Your task to perform on an android device: Clear all items from cart on amazon.com. Search for "corsair k70" on amazon.com, select the first entry, and add it to the cart. Image 0: 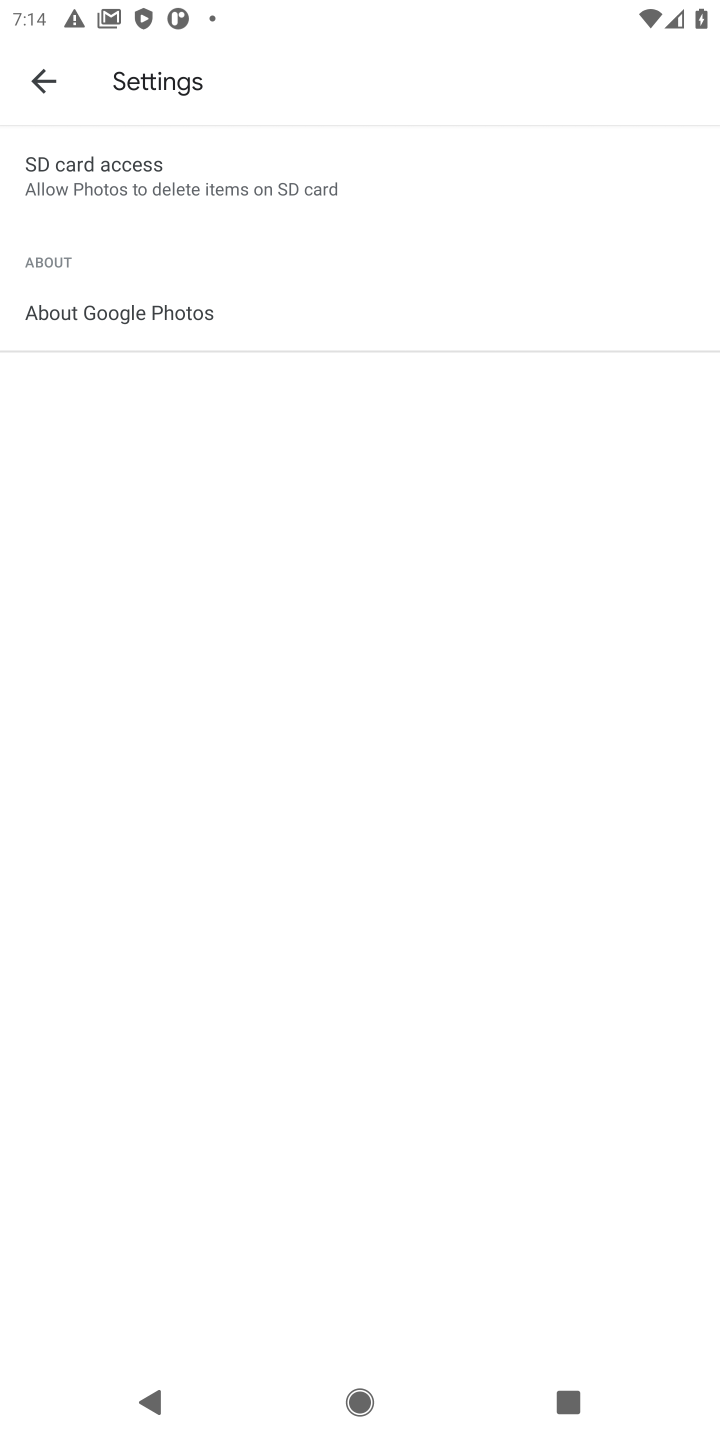
Step 0: press home button
Your task to perform on an android device: Clear all items from cart on amazon.com. Search for "corsair k70" on amazon.com, select the first entry, and add it to the cart. Image 1: 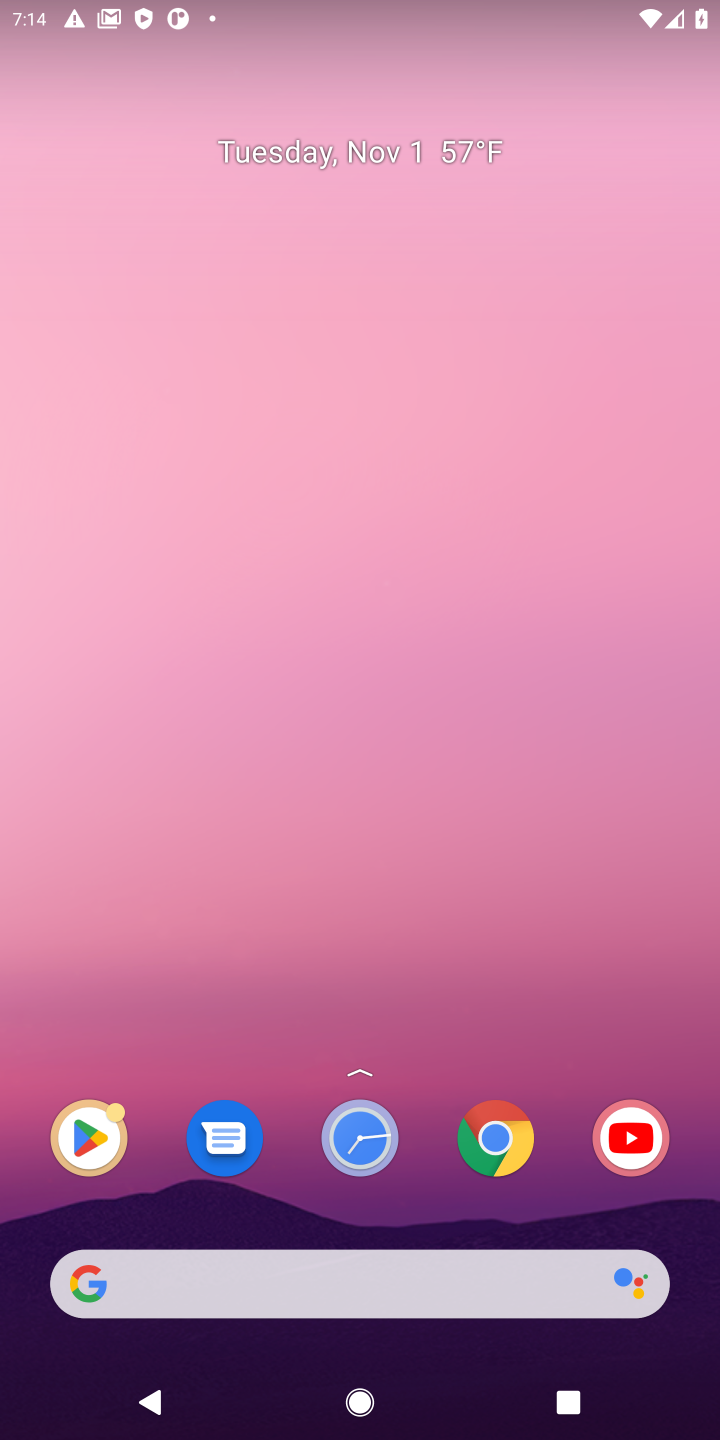
Step 1: click (485, 1155)
Your task to perform on an android device: Clear all items from cart on amazon.com. Search for "corsair k70" on amazon.com, select the first entry, and add it to the cart. Image 2: 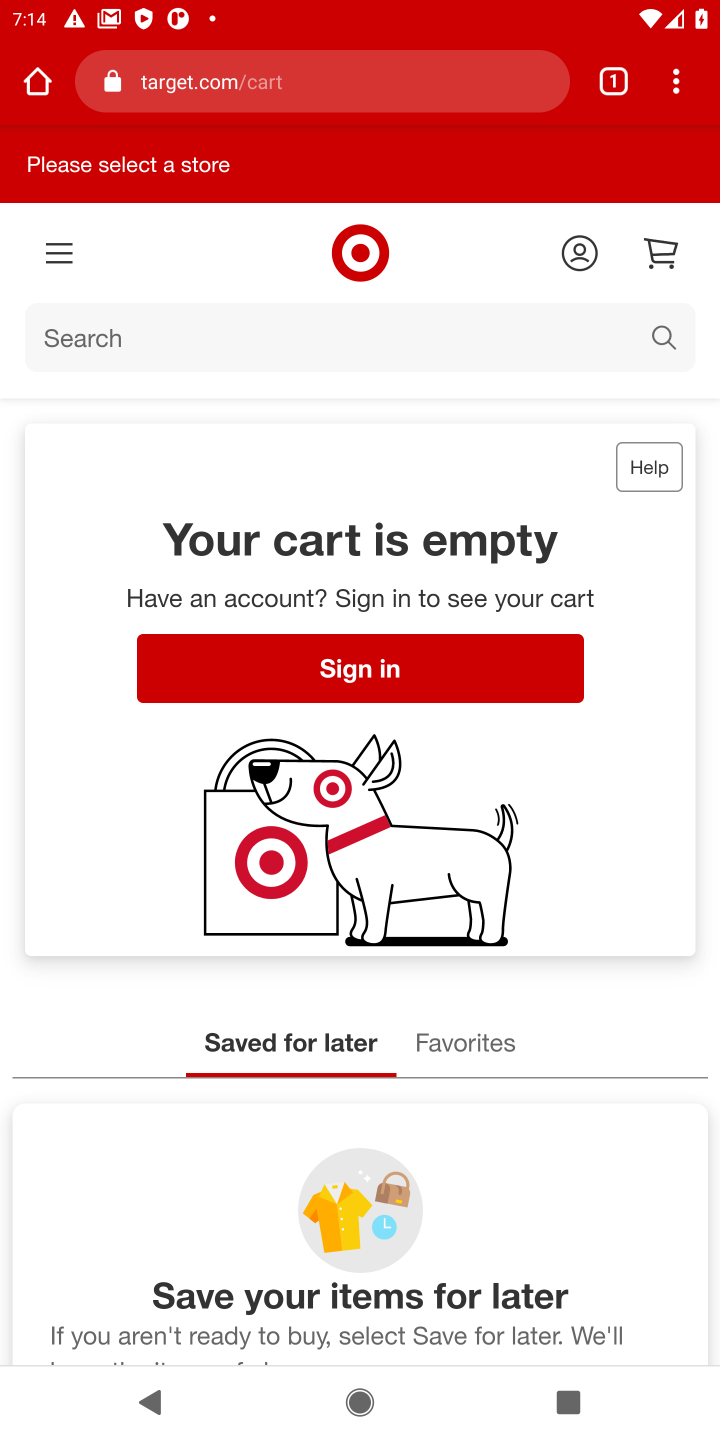
Step 2: click (324, 91)
Your task to perform on an android device: Clear all items from cart on amazon.com. Search for "corsair k70" on amazon.com, select the first entry, and add it to the cart. Image 3: 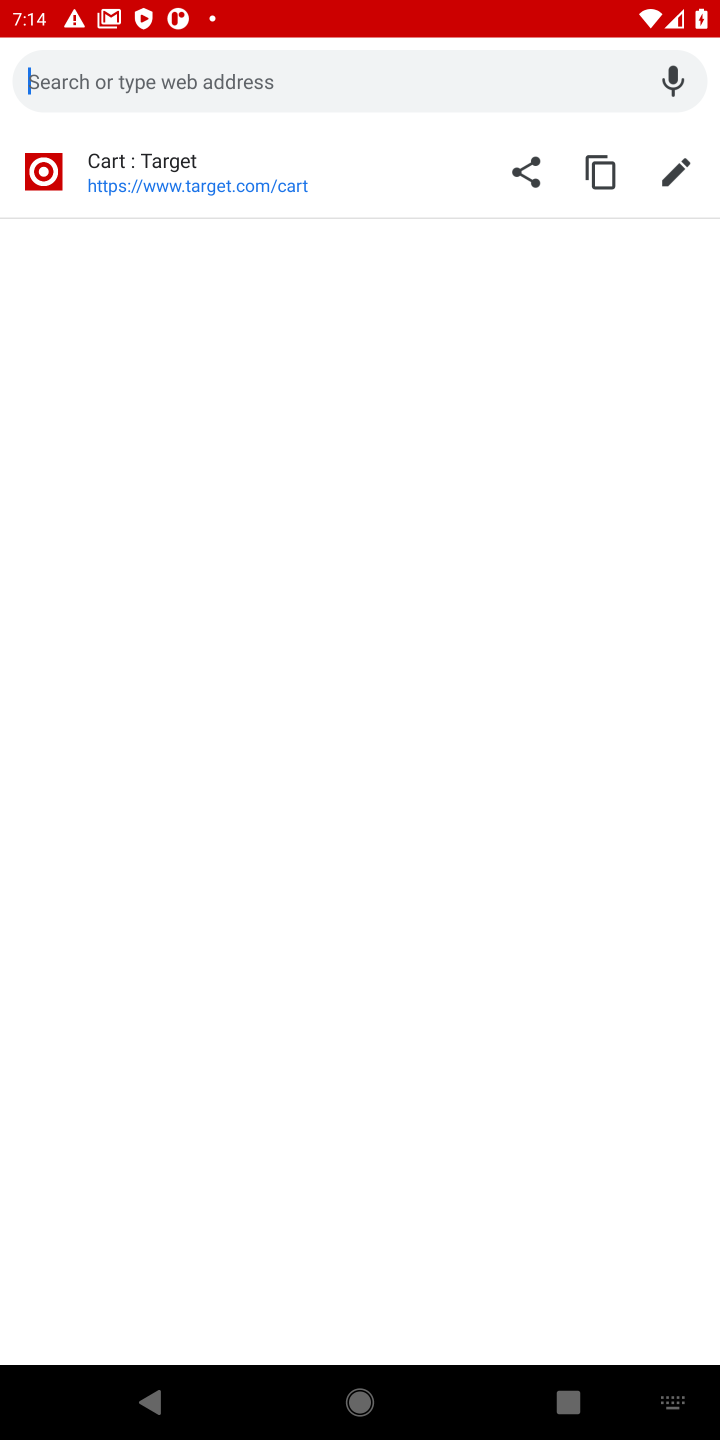
Step 3: type "amazon.com"
Your task to perform on an android device: Clear all items from cart on amazon.com. Search for "corsair k70" on amazon.com, select the first entry, and add it to the cart. Image 4: 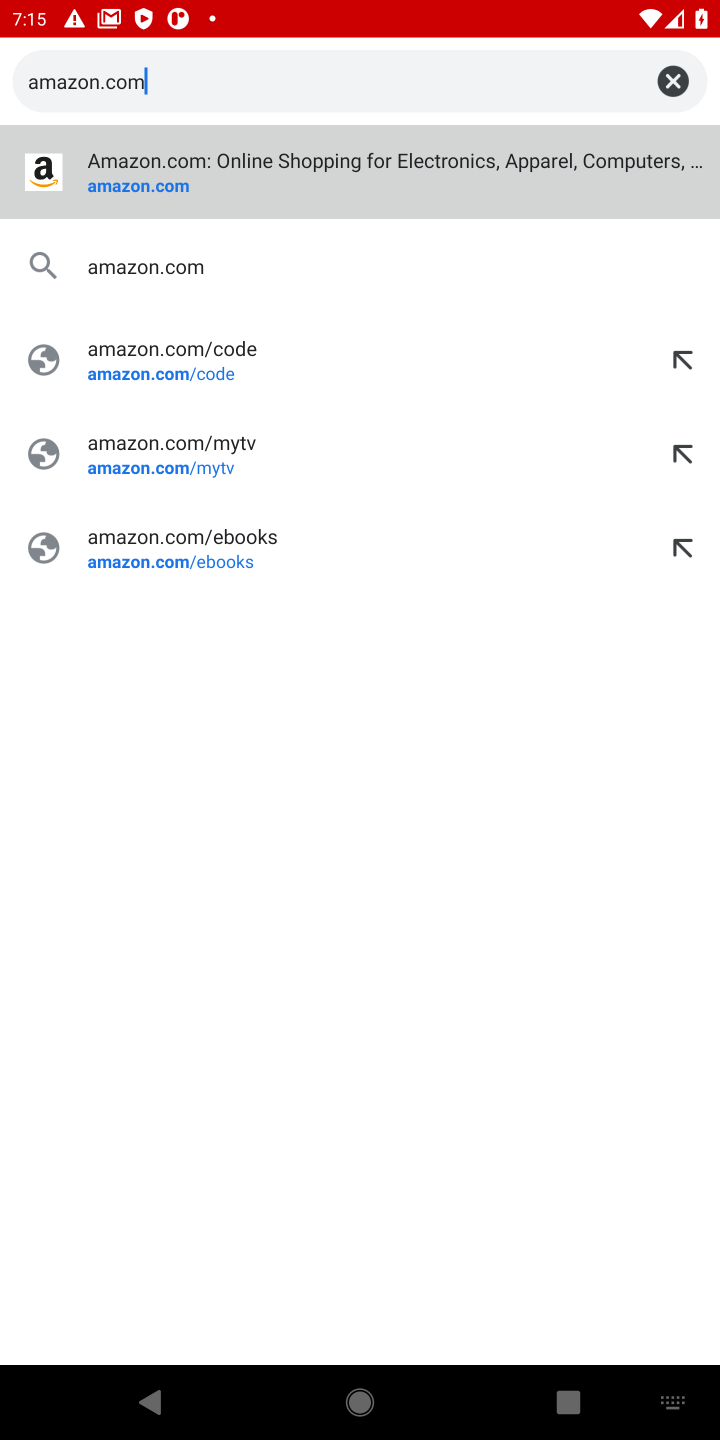
Step 4: click (153, 276)
Your task to perform on an android device: Clear all items from cart on amazon.com. Search for "corsair k70" on amazon.com, select the first entry, and add it to the cart. Image 5: 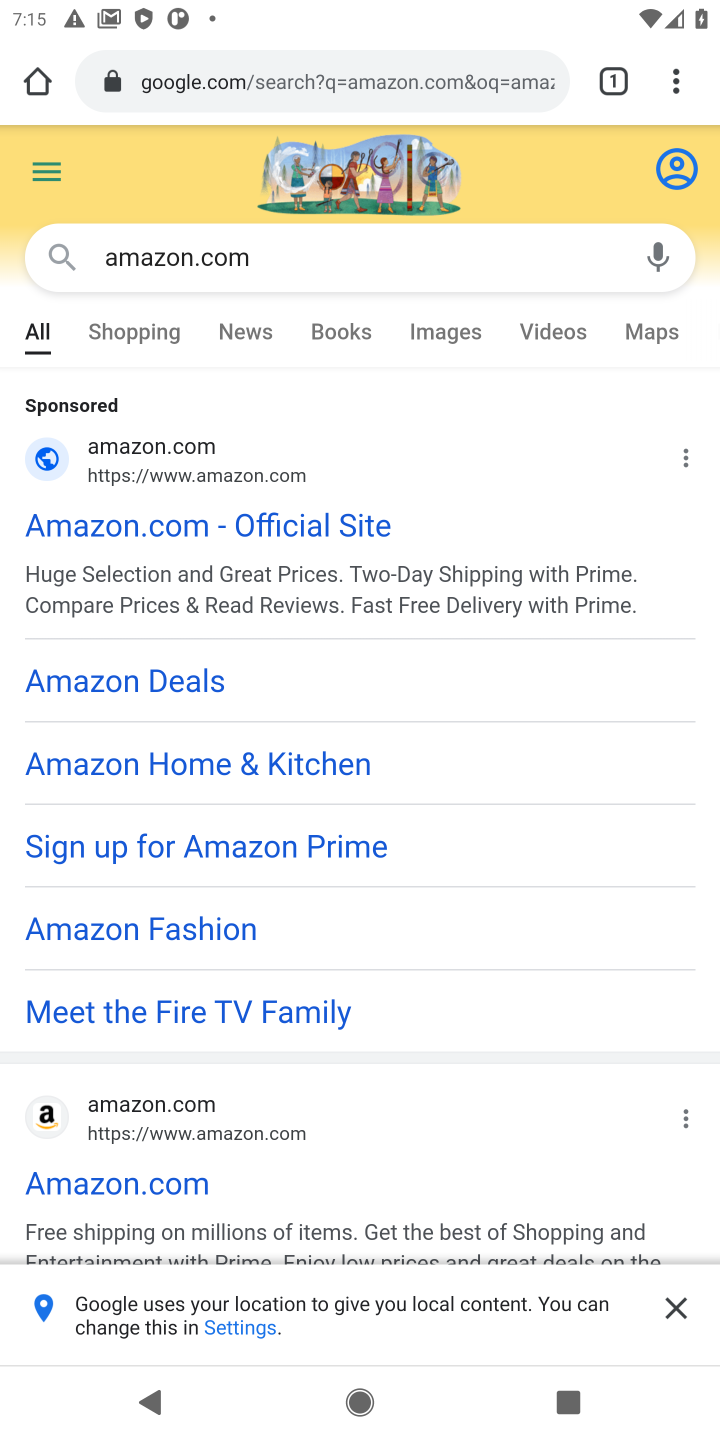
Step 5: click (152, 531)
Your task to perform on an android device: Clear all items from cart on amazon.com. Search for "corsair k70" on amazon.com, select the first entry, and add it to the cart. Image 6: 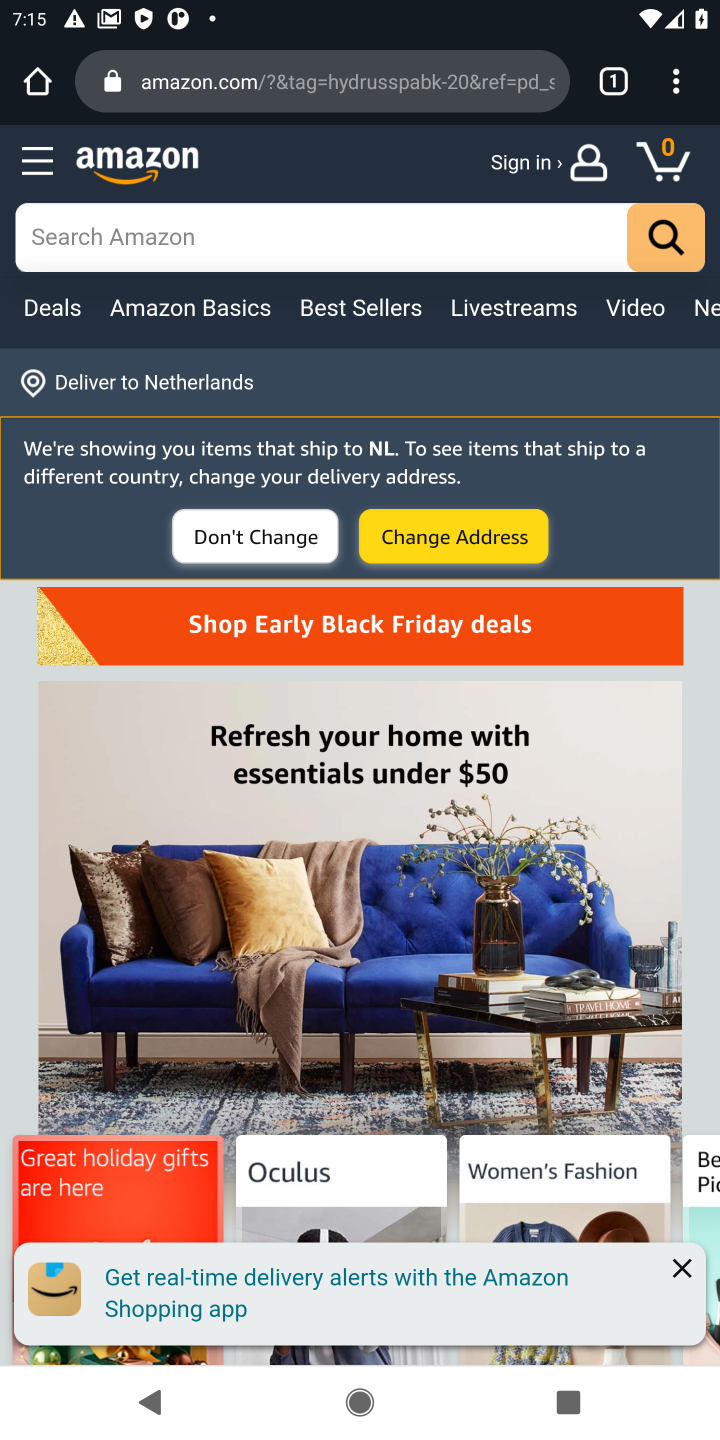
Step 6: click (653, 148)
Your task to perform on an android device: Clear all items from cart on amazon.com. Search for "corsair k70" on amazon.com, select the first entry, and add it to the cart. Image 7: 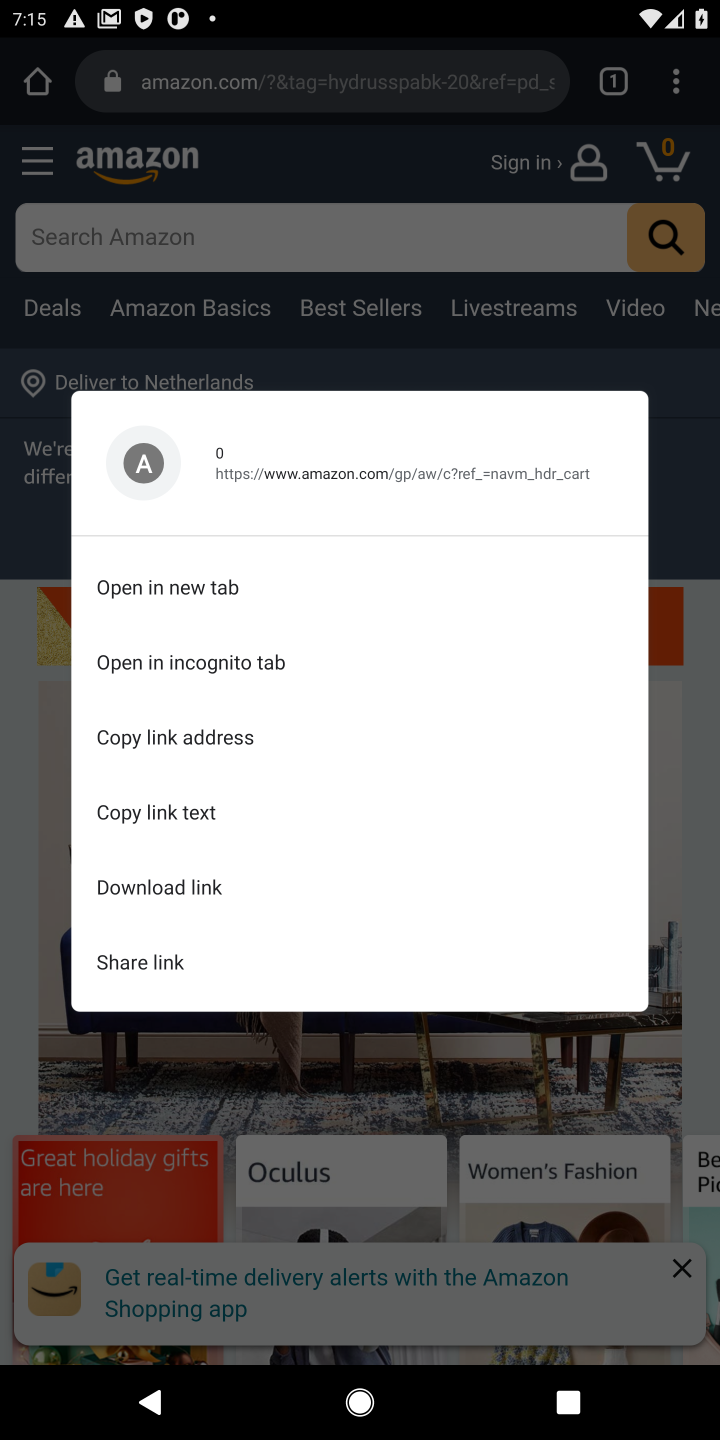
Step 7: click (671, 155)
Your task to perform on an android device: Clear all items from cart on amazon.com. Search for "corsair k70" on amazon.com, select the first entry, and add it to the cart. Image 8: 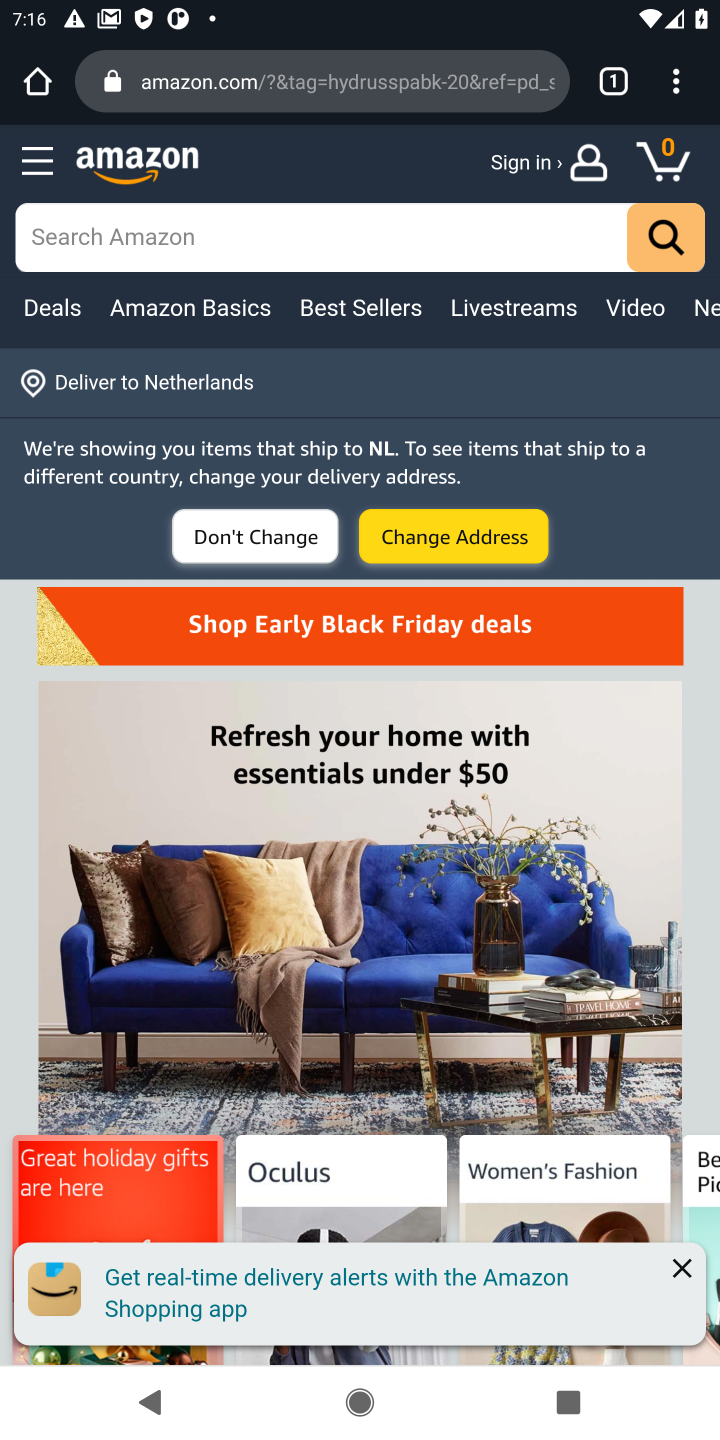
Step 8: click (666, 155)
Your task to perform on an android device: Clear all items from cart on amazon.com. Search for "corsair k70" on amazon.com, select the first entry, and add it to the cart. Image 9: 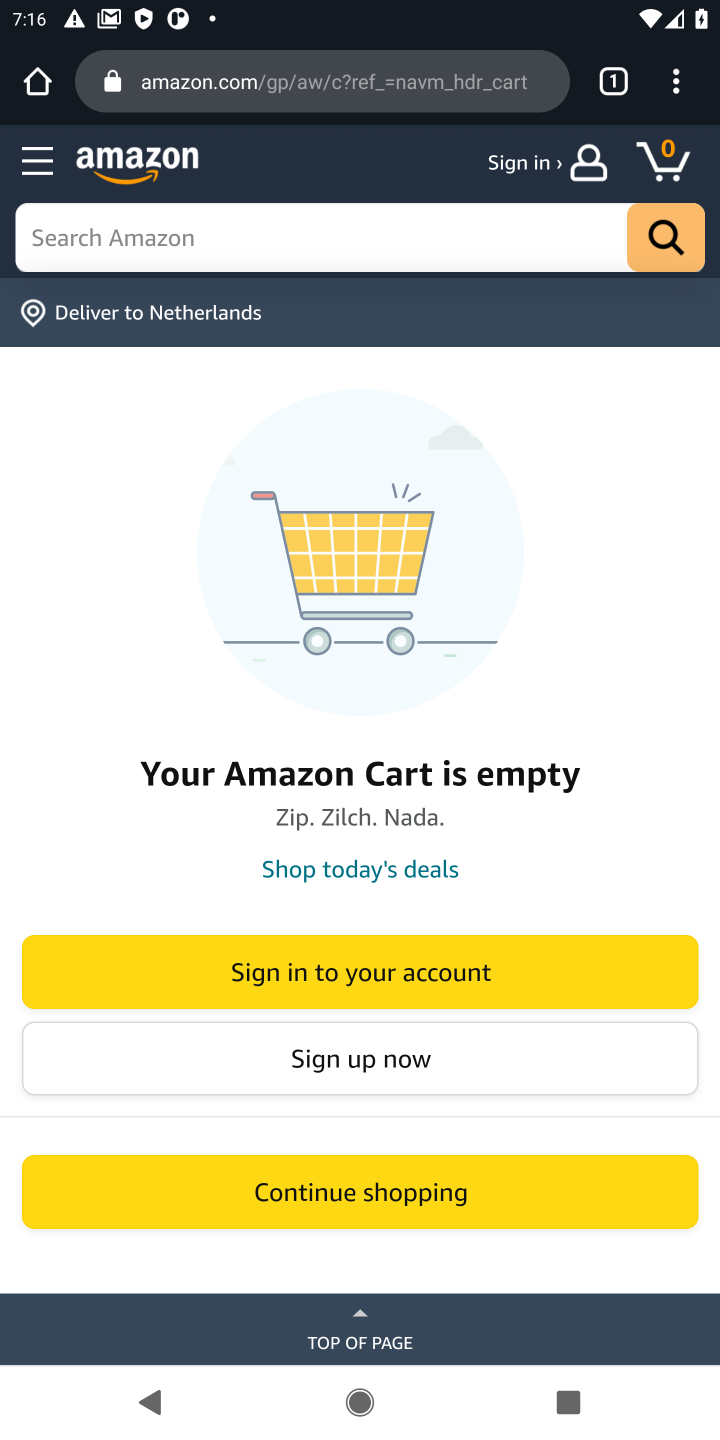
Step 9: click (244, 216)
Your task to perform on an android device: Clear all items from cart on amazon.com. Search for "corsair k70" on amazon.com, select the first entry, and add it to the cart. Image 10: 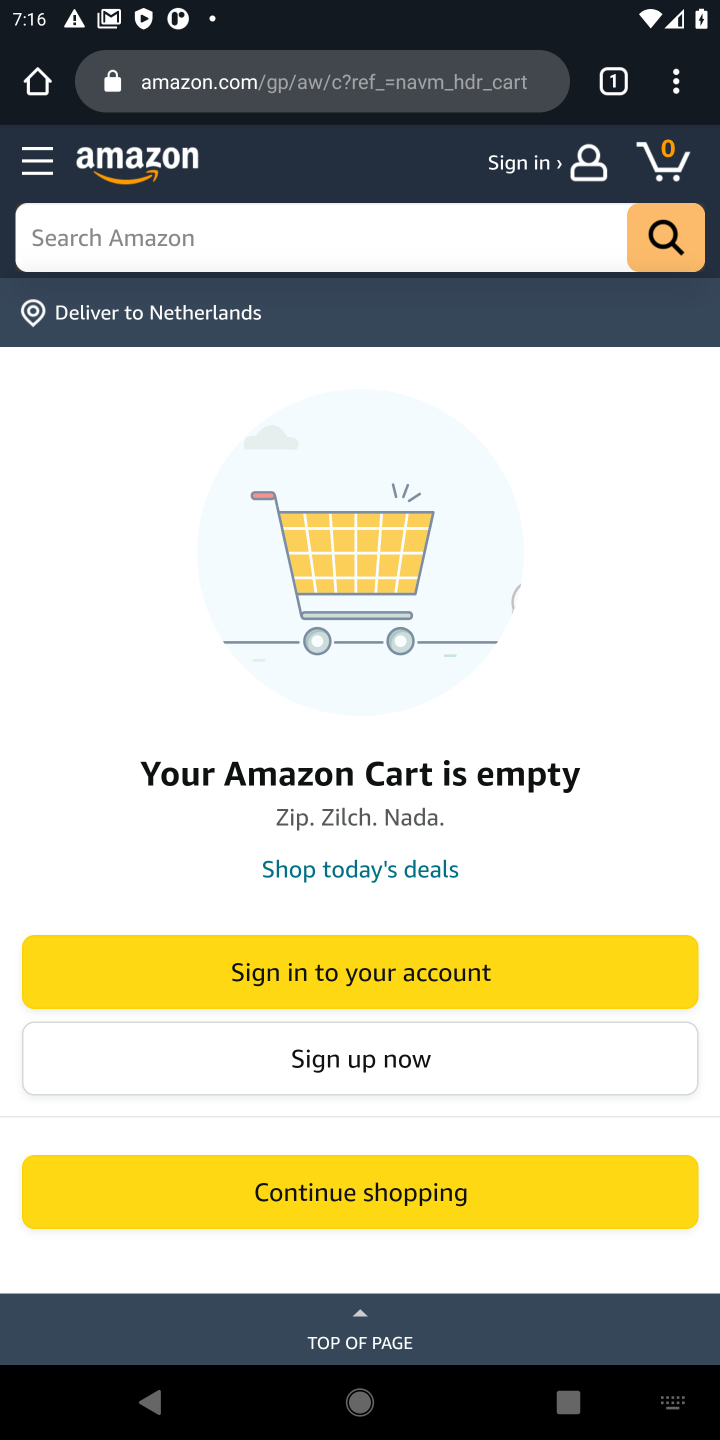
Step 10: type "corsair k70"
Your task to perform on an android device: Clear all items from cart on amazon.com. Search for "corsair k70" on amazon.com, select the first entry, and add it to the cart. Image 11: 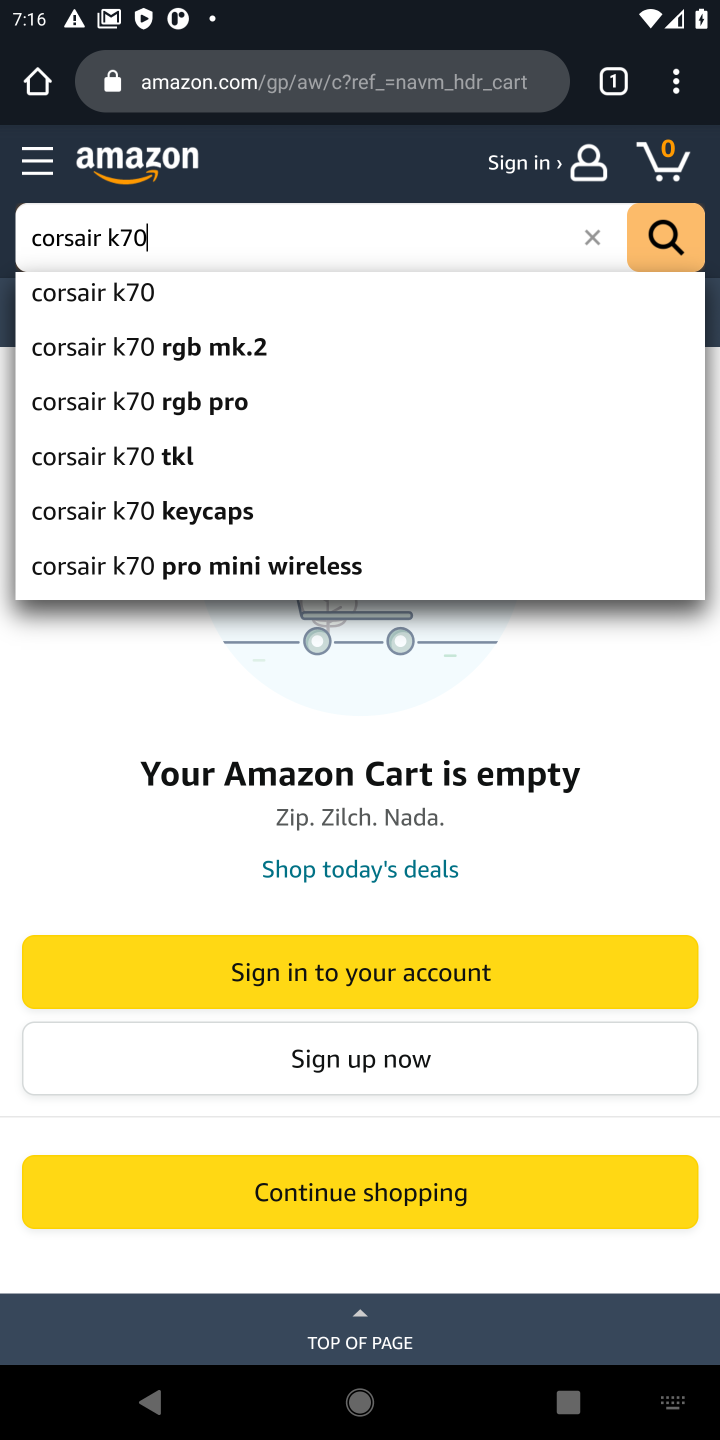
Step 11: click (92, 310)
Your task to perform on an android device: Clear all items from cart on amazon.com. Search for "corsair k70" on amazon.com, select the first entry, and add it to the cart. Image 12: 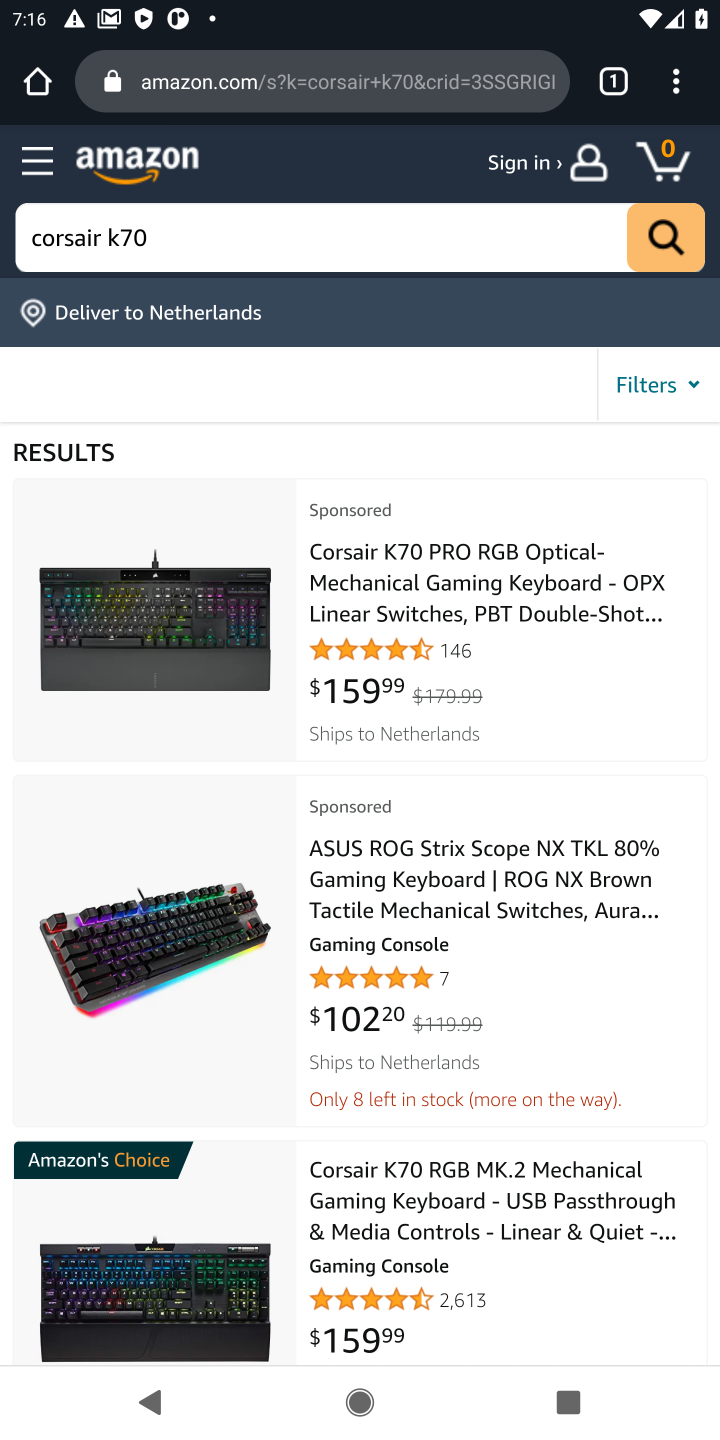
Step 12: click (261, 610)
Your task to perform on an android device: Clear all items from cart on amazon.com. Search for "corsair k70" on amazon.com, select the first entry, and add it to the cart. Image 13: 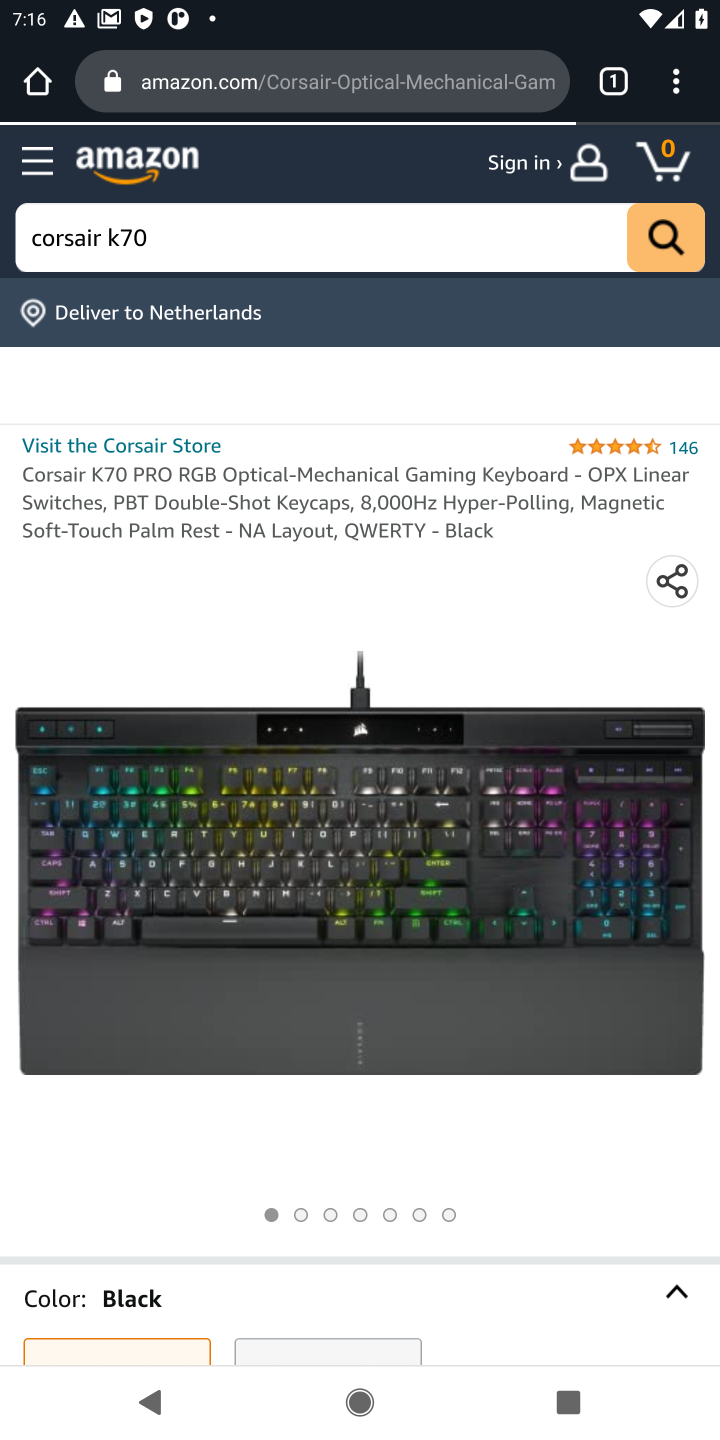
Step 13: drag from (315, 1078) to (264, 318)
Your task to perform on an android device: Clear all items from cart on amazon.com. Search for "corsair k70" on amazon.com, select the first entry, and add it to the cart. Image 14: 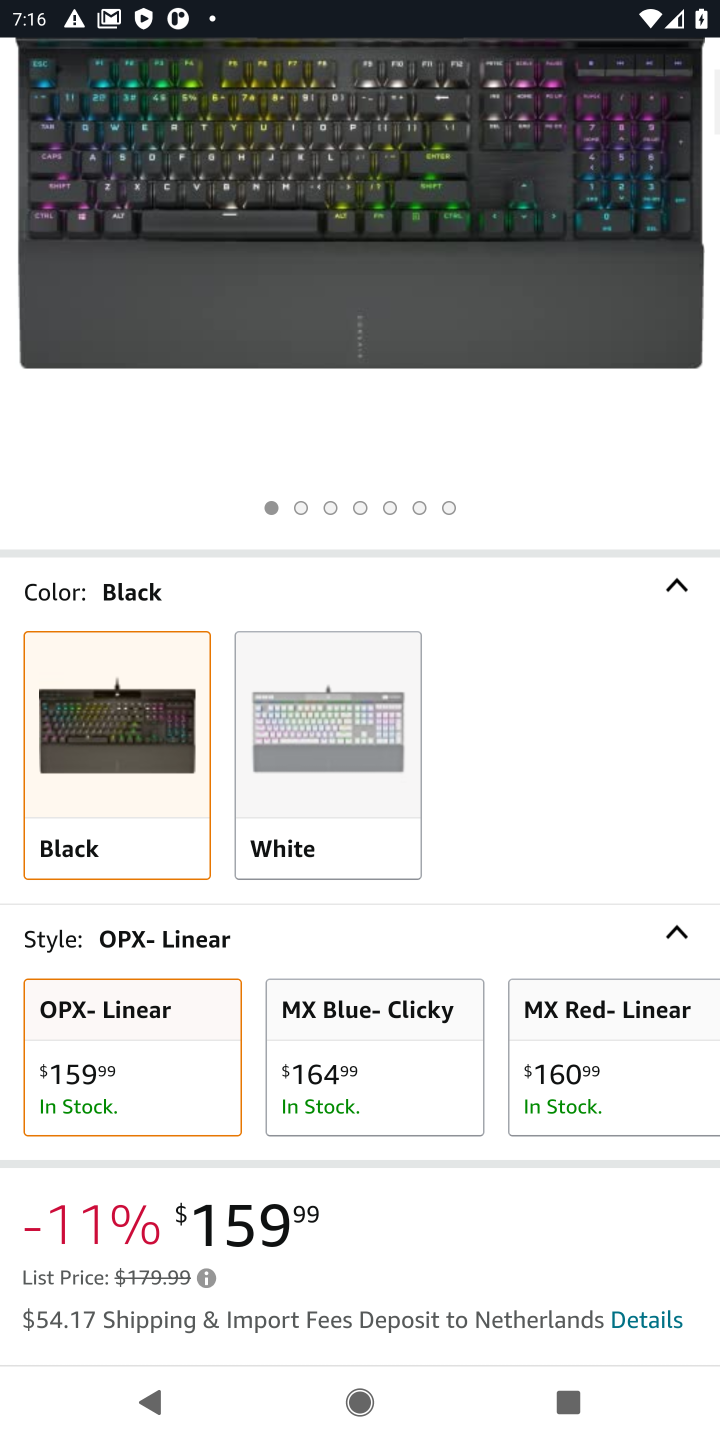
Step 14: drag from (321, 981) to (322, 398)
Your task to perform on an android device: Clear all items from cart on amazon.com. Search for "corsair k70" on amazon.com, select the first entry, and add it to the cart. Image 15: 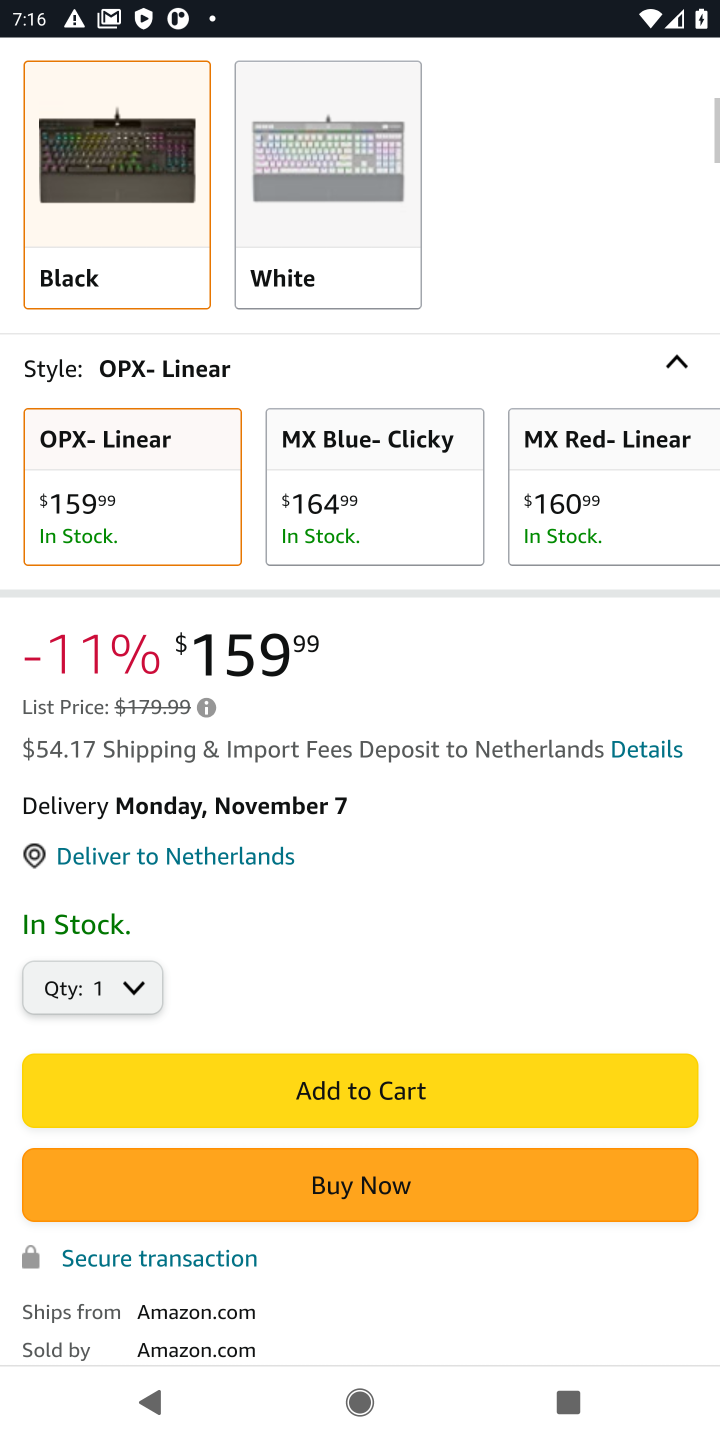
Step 15: click (327, 1085)
Your task to perform on an android device: Clear all items from cart on amazon.com. Search for "corsair k70" on amazon.com, select the first entry, and add it to the cart. Image 16: 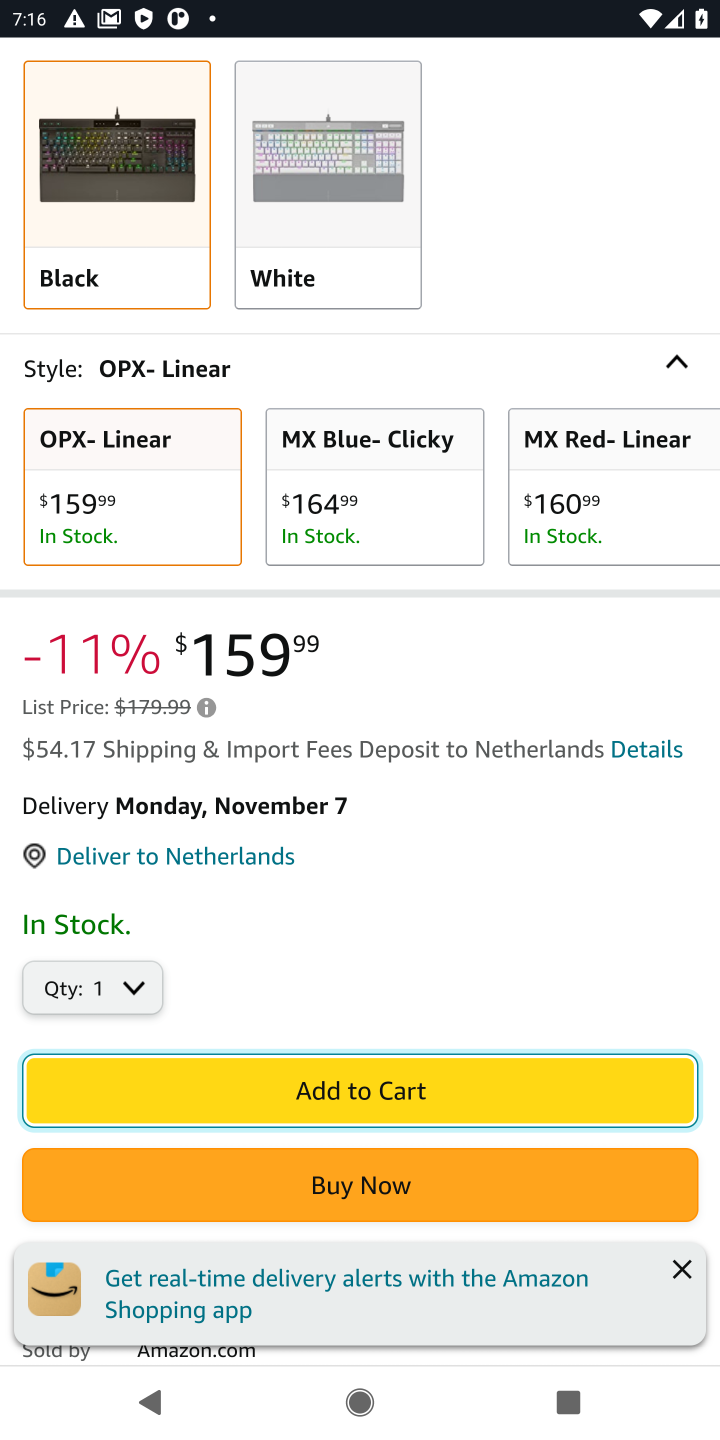
Step 16: click (364, 1080)
Your task to perform on an android device: Clear all items from cart on amazon.com. Search for "corsair k70" on amazon.com, select the first entry, and add it to the cart. Image 17: 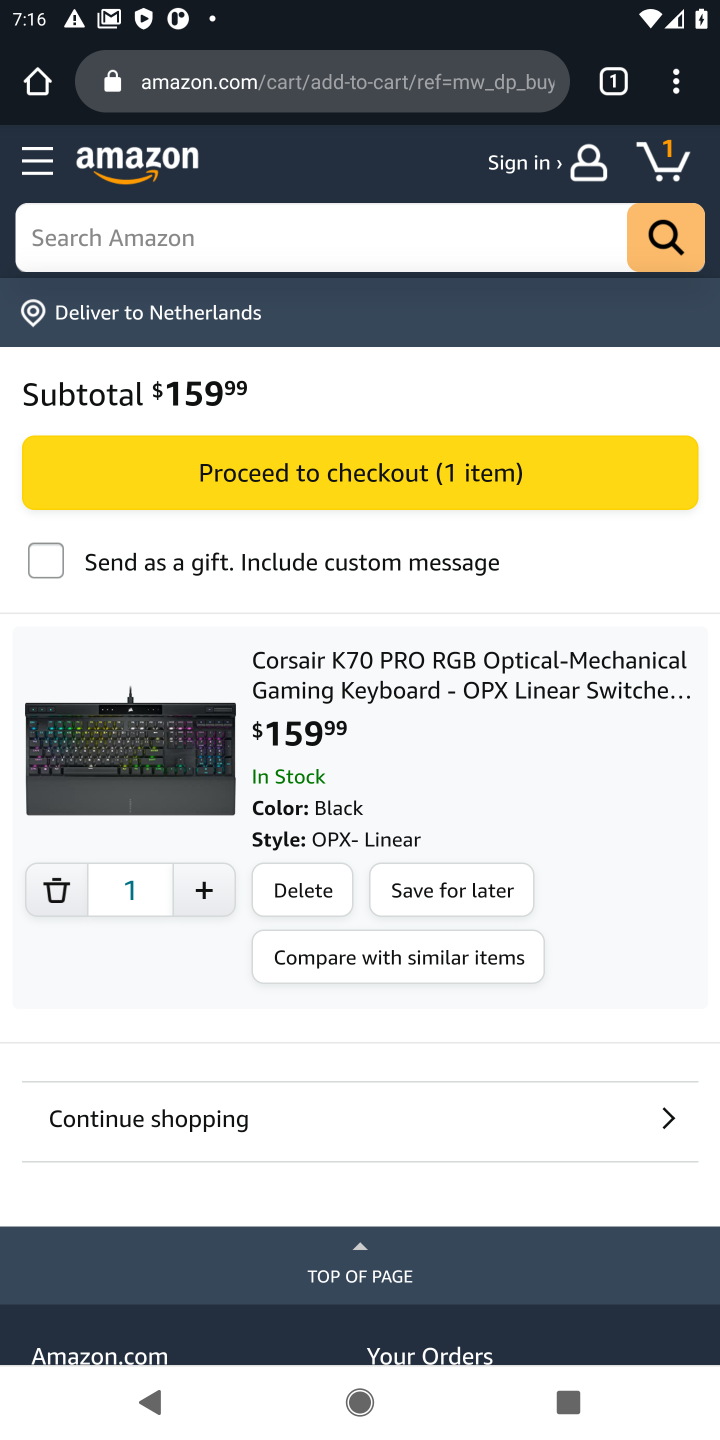
Step 17: task complete